Your task to perform on an android device: Open Google Image 0: 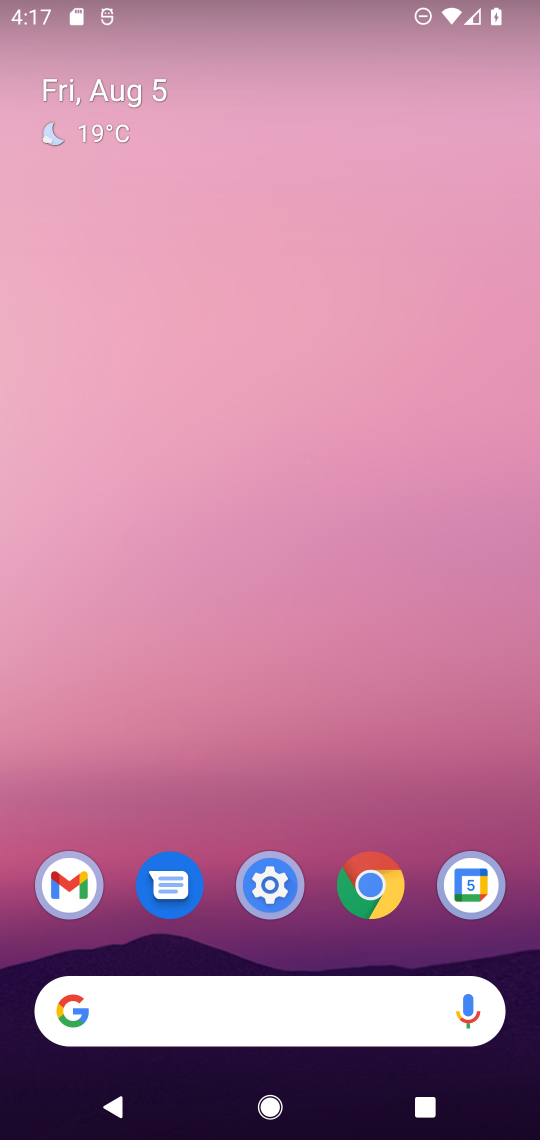
Step 0: drag from (321, 812) to (325, 96)
Your task to perform on an android device: Open Google Image 1: 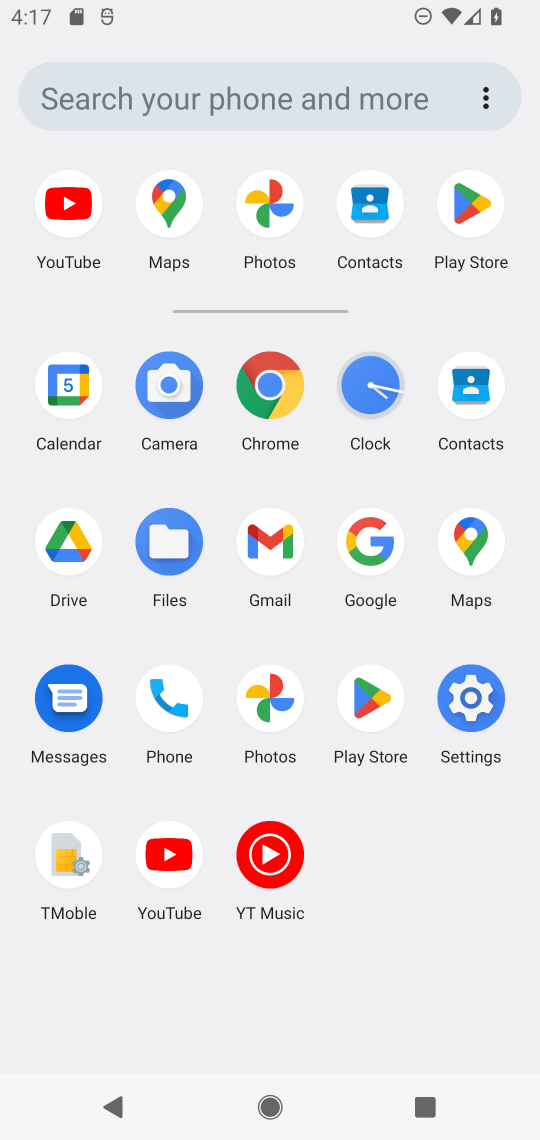
Step 1: click (372, 541)
Your task to perform on an android device: Open Google Image 2: 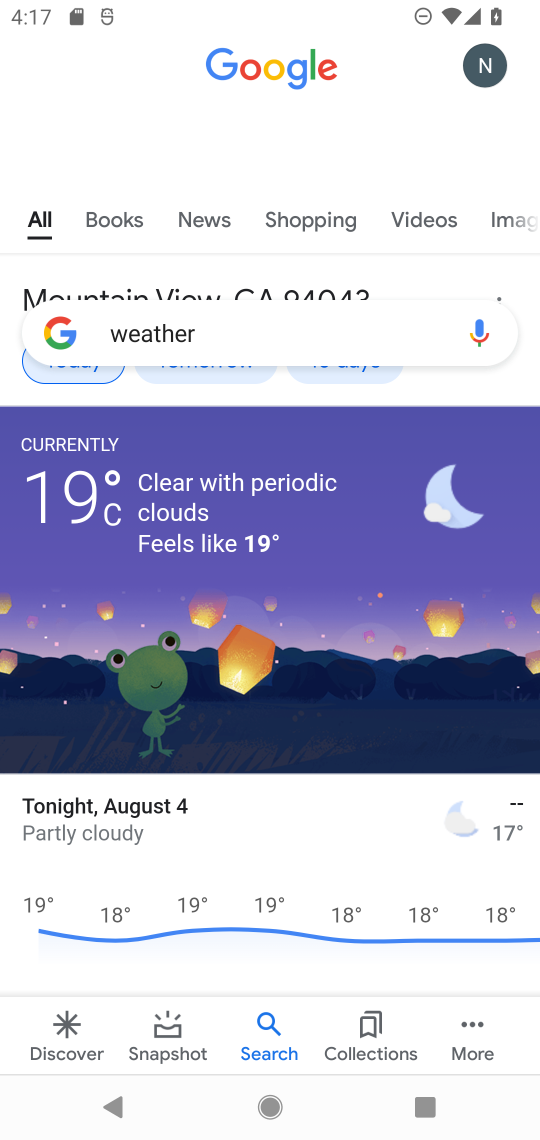
Step 2: task complete